Your task to perform on an android device: Open Google Chrome Image 0: 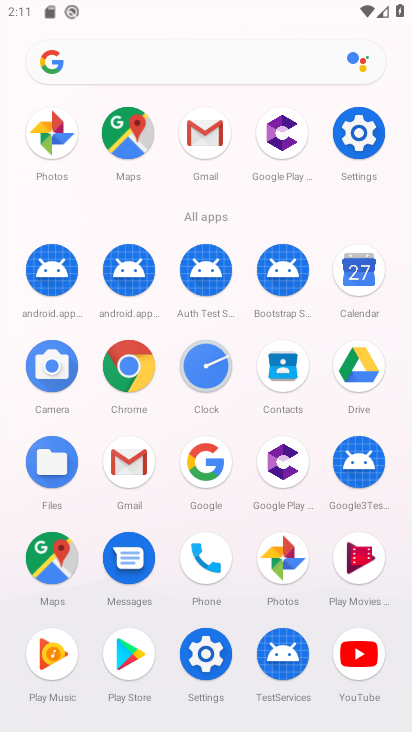
Step 0: press home button
Your task to perform on an android device: Open Google Chrome Image 1: 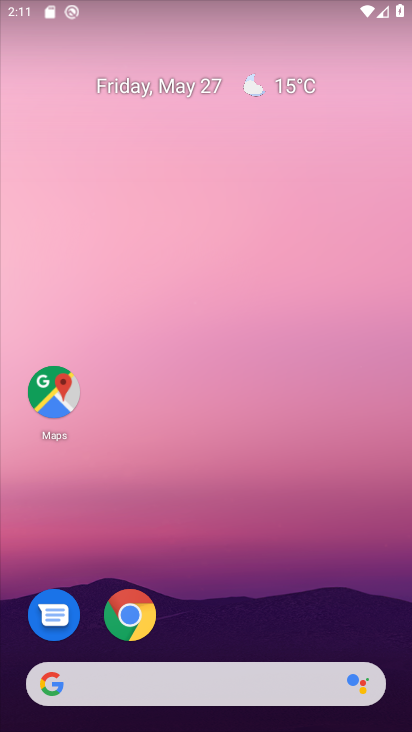
Step 1: click (142, 613)
Your task to perform on an android device: Open Google Chrome Image 2: 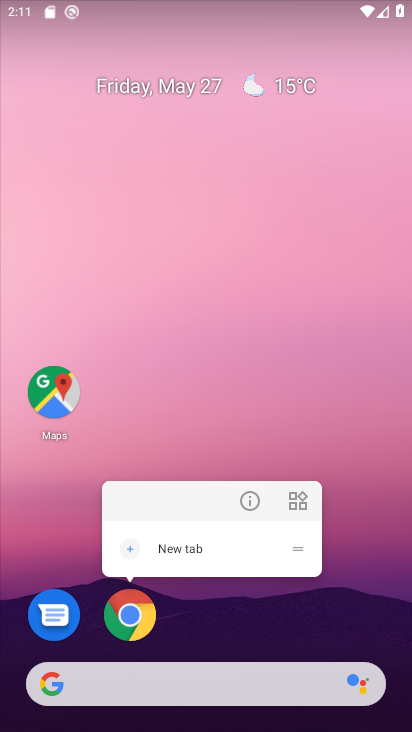
Step 2: click (113, 600)
Your task to perform on an android device: Open Google Chrome Image 3: 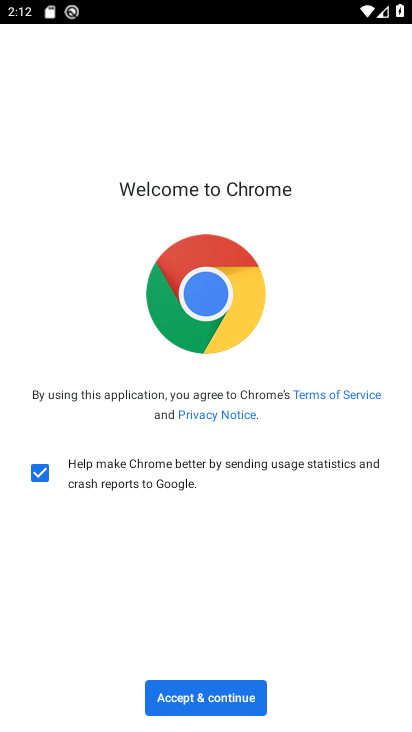
Step 3: task complete